Your task to perform on an android device: Go to Wikipedia Image 0: 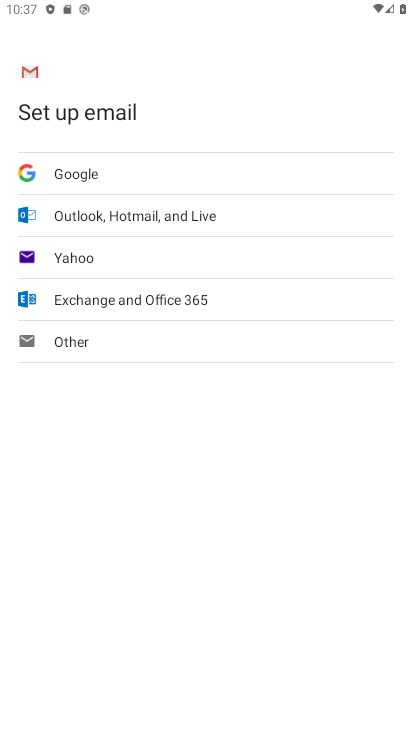
Step 0: press home button
Your task to perform on an android device: Go to Wikipedia Image 1: 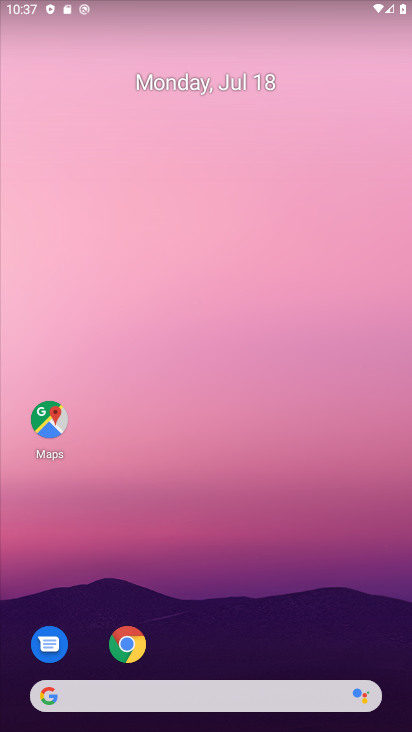
Step 1: click (129, 647)
Your task to perform on an android device: Go to Wikipedia Image 2: 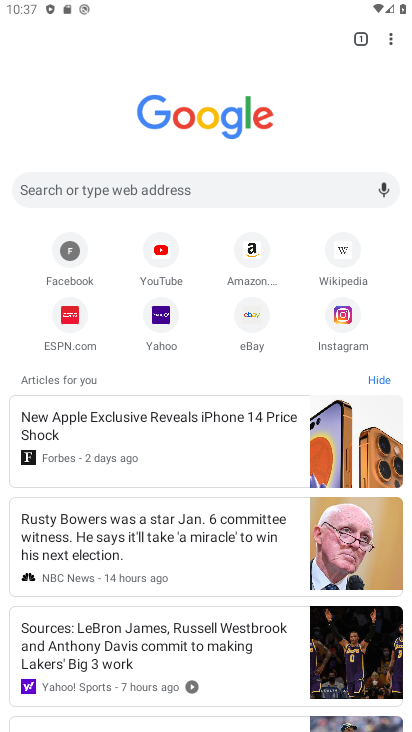
Step 2: click (340, 252)
Your task to perform on an android device: Go to Wikipedia Image 3: 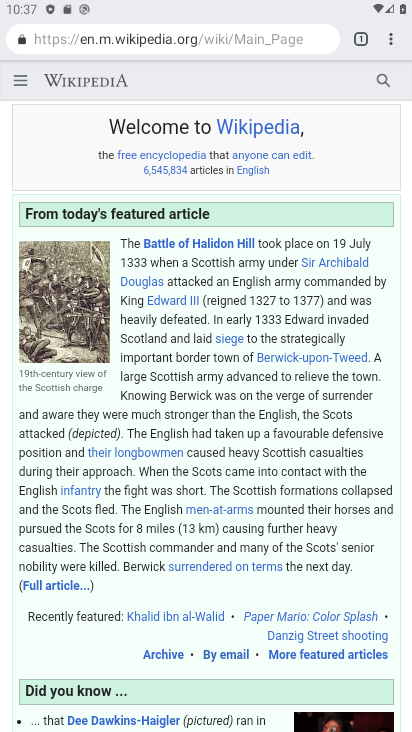
Step 3: task complete